Your task to perform on an android device: Open Google Maps and go to "Timeline" Image 0: 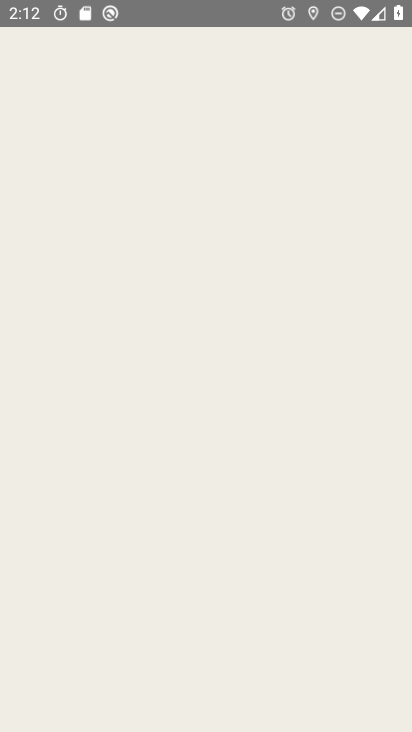
Step 0: press home button
Your task to perform on an android device: Open Google Maps and go to "Timeline" Image 1: 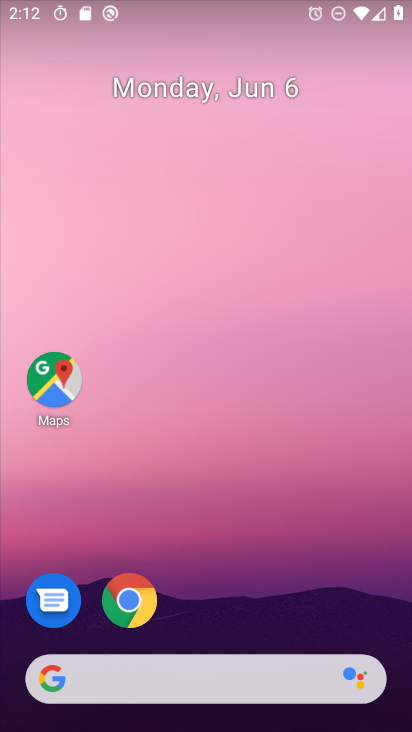
Step 1: click (30, 354)
Your task to perform on an android device: Open Google Maps and go to "Timeline" Image 2: 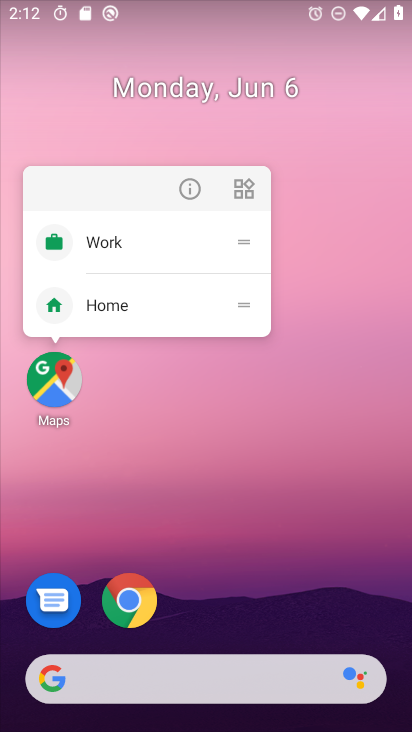
Step 2: click (69, 373)
Your task to perform on an android device: Open Google Maps and go to "Timeline" Image 3: 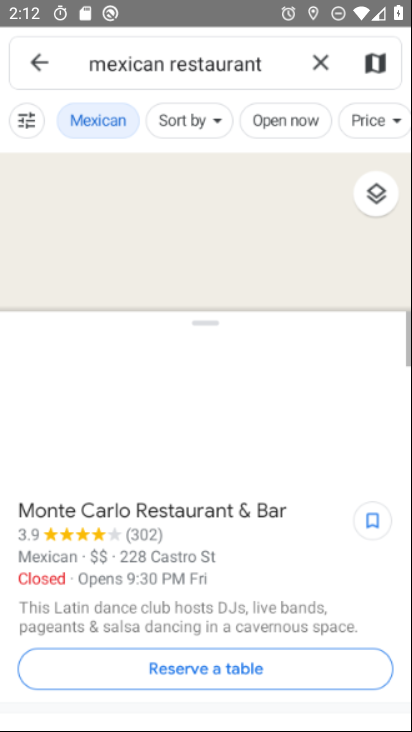
Step 3: click (37, 67)
Your task to perform on an android device: Open Google Maps and go to "Timeline" Image 4: 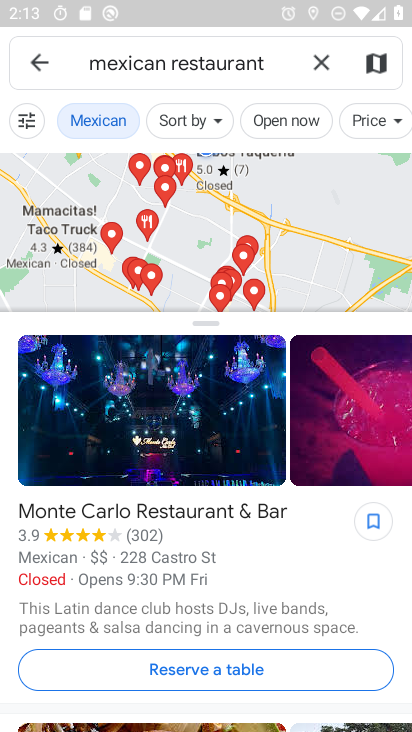
Step 4: click (37, 67)
Your task to perform on an android device: Open Google Maps and go to "Timeline" Image 5: 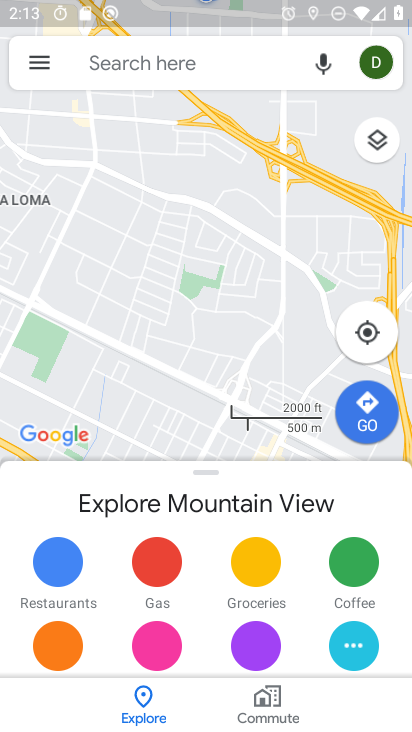
Step 5: click (42, 62)
Your task to perform on an android device: Open Google Maps and go to "Timeline" Image 6: 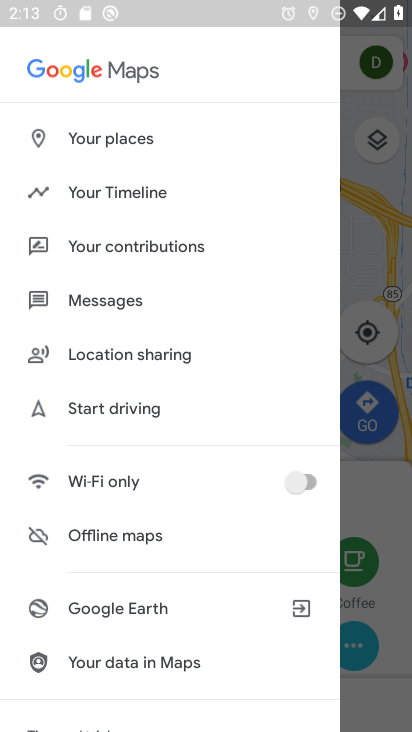
Step 6: click (114, 191)
Your task to perform on an android device: Open Google Maps and go to "Timeline" Image 7: 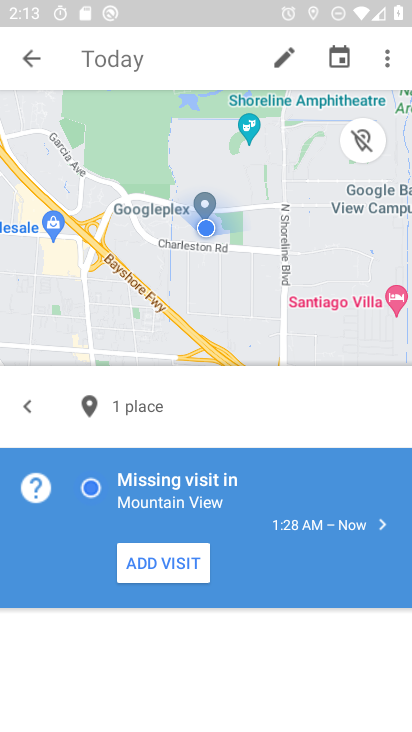
Step 7: task complete